Your task to perform on an android device: turn on javascript in the chrome app Image 0: 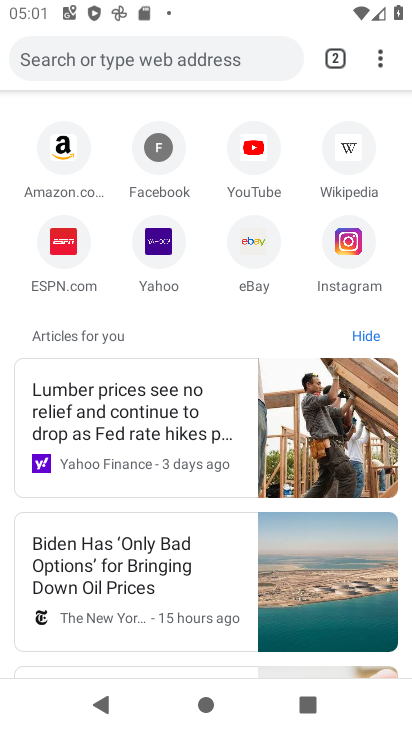
Step 0: task complete